Your task to perform on an android device: turn on location history Image 0: 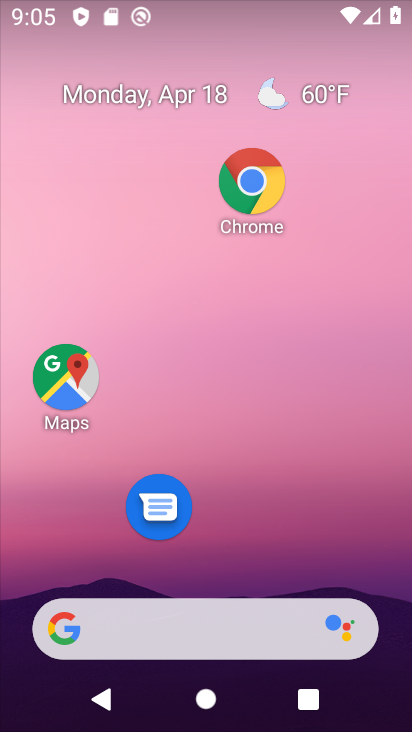
Step 0: drag from (236, 619) to (176, 117)
Your task to perform on an android device: turn on location history Image 1: 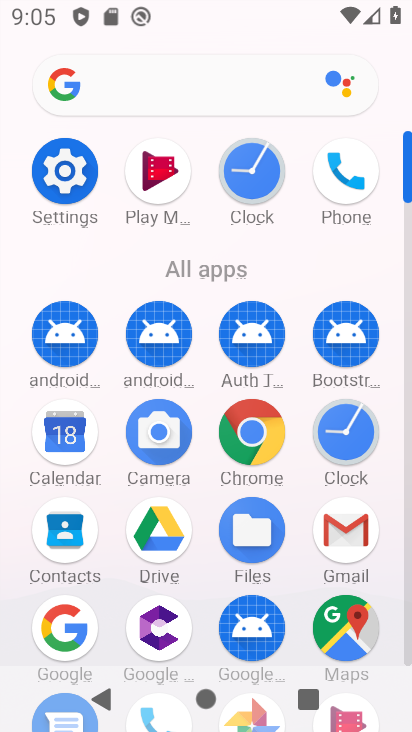
Step 1: click (60, 174)
Your task to perform on an android device: turn on location history Image 2: 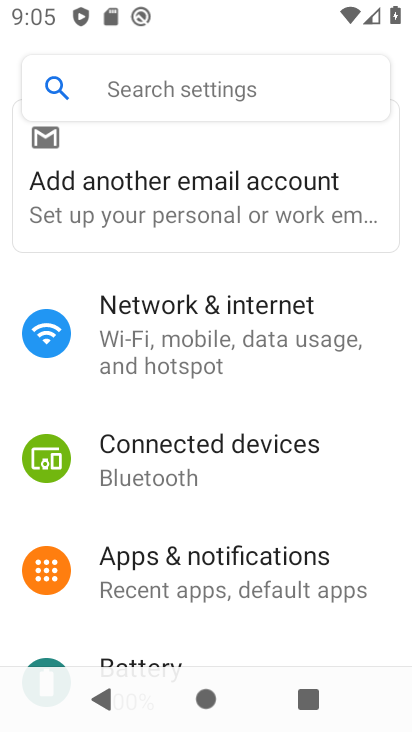
Step 2: drag from (273, 493) to (288, 105)
Your task to perform on an android device: turn on location history Image 3: 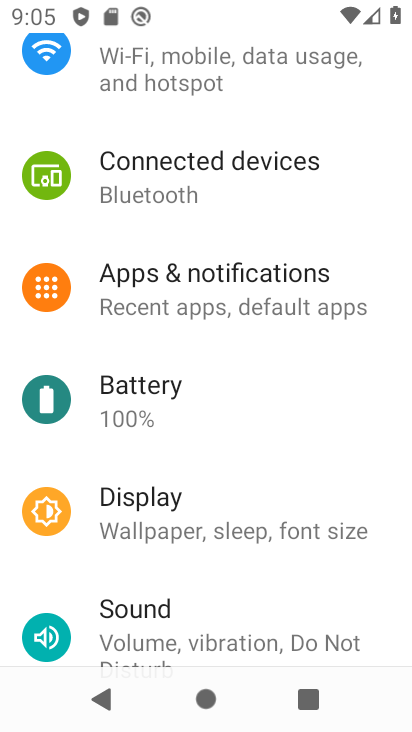
Step 3: drag from (157, 149) to (136, 47)
Your task to perform on an android device: turn on location history Image 4: 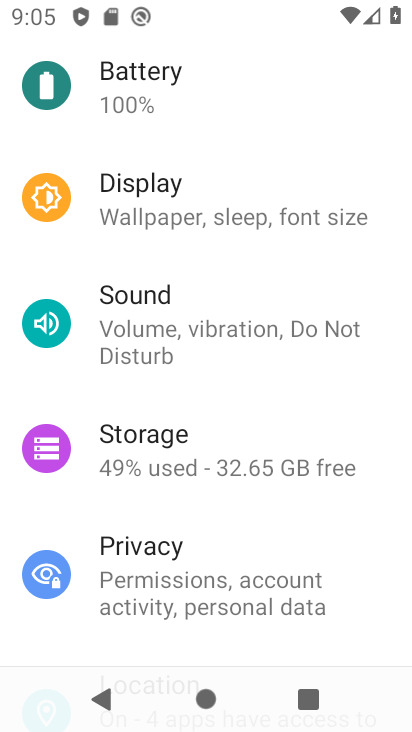
Step 4: drag from (191, 569) to (144, 190)
Your task to perform on an android device: turn on location history Image 5: 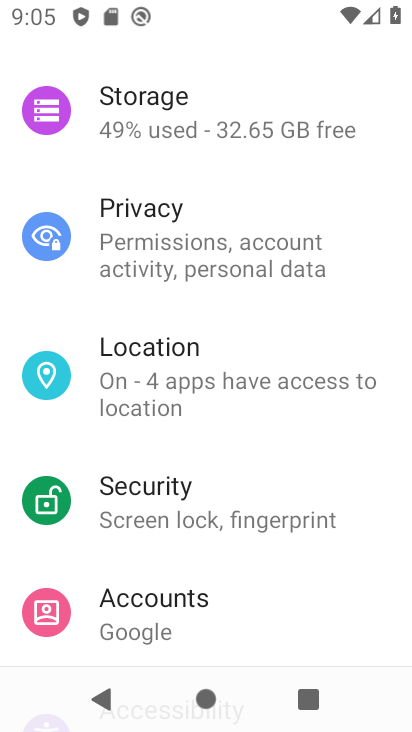
Step 5: click (174, 427)
Your task to perform on an android device: turn on location history Image 6: 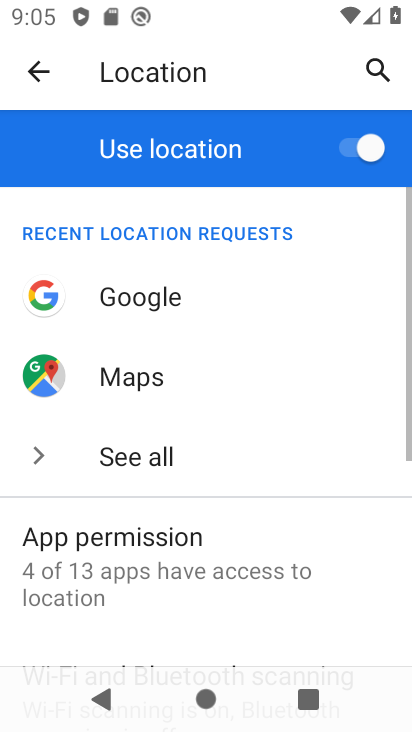
Step 6: drag from (181, 594) to (178, 160)
Your task to perform on an android device: turn on location history Image 7: 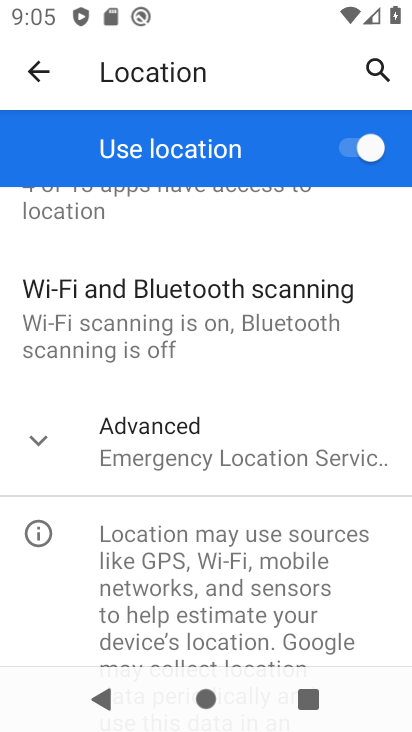
Step 7: click (176, 457)
Your task to perform on an android device: turn on location history Image 8: 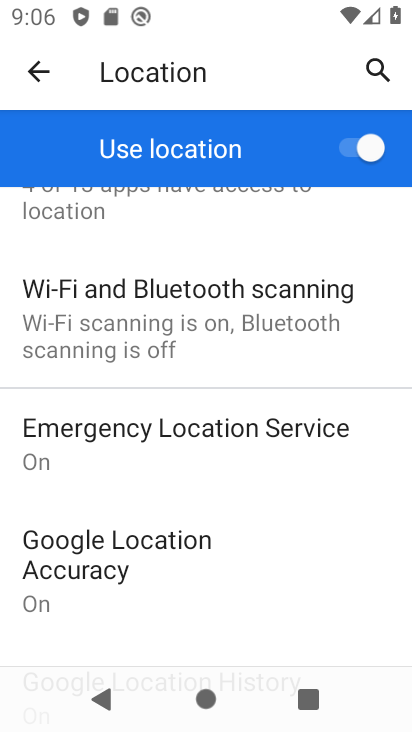
Step 8: drag from (189, 551) to (164, 156)
Your task to perform on an android device: turn on location history Image 9: 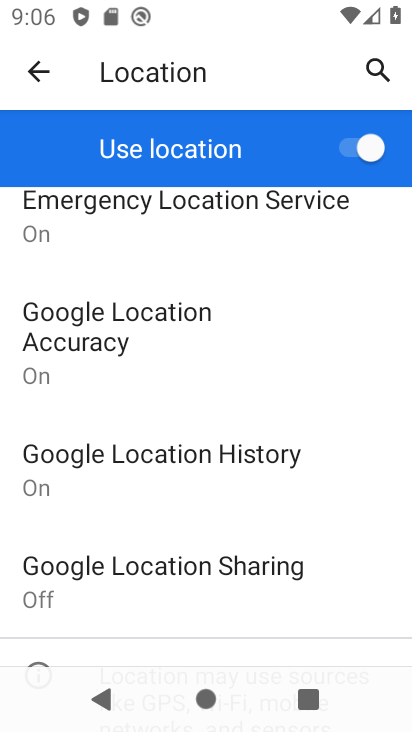
Step 9: click (180, 482)
Your task to perform on an android device: turn on location history Image 10: 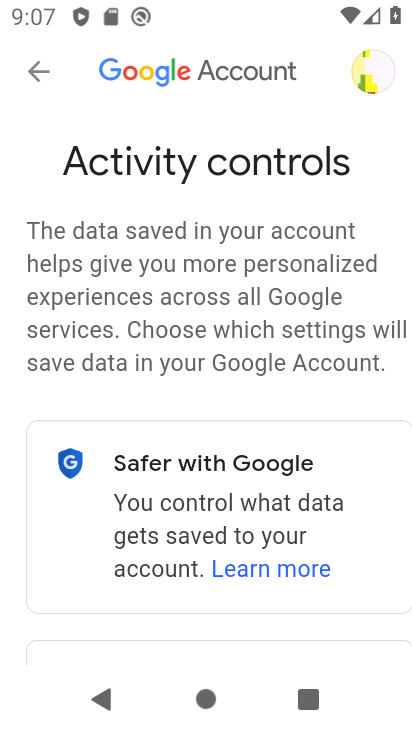
Step 10: task complete